Your task to perform on an android device: Go to battery settings Image 0: 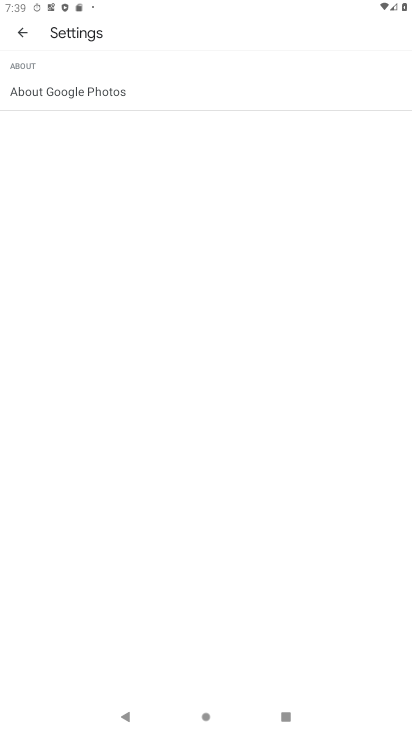
Step 0: press home button
Your task to perform on an android device: Go to battery settings Image 1: 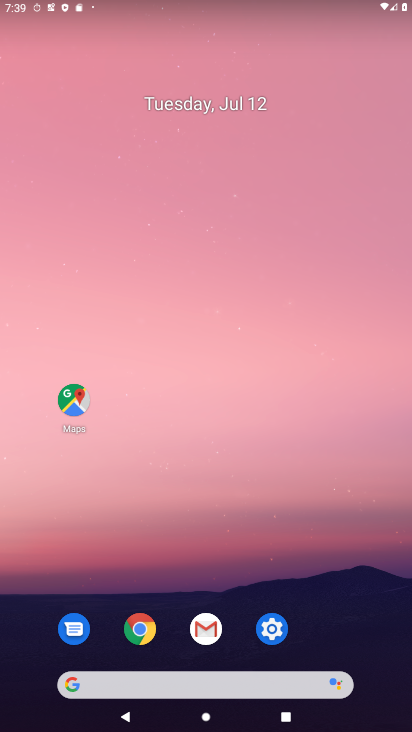
Step 1: click (270, 620)
Your task to perform on an android device: Go to battery settings Image 2: 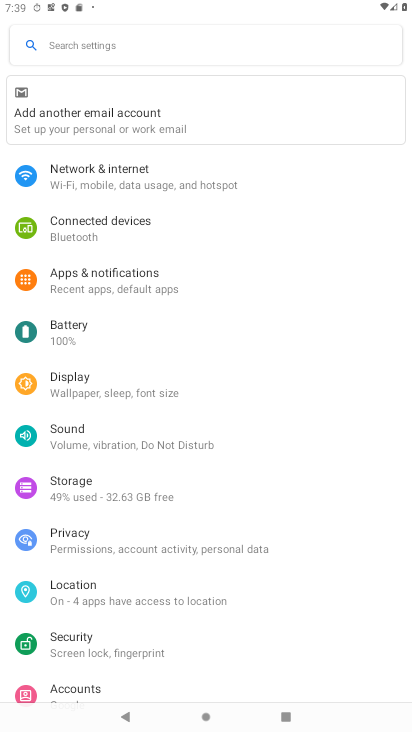
Step 2: click (101, 332)
Your task to perform on an android device: Go to battery settings Image 3: 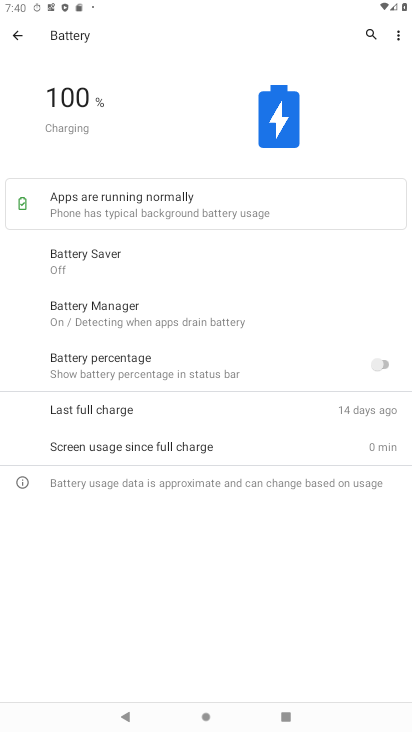
Step 3: task complete